Your task to perform on an android device: turn off airplane mode Image 0: 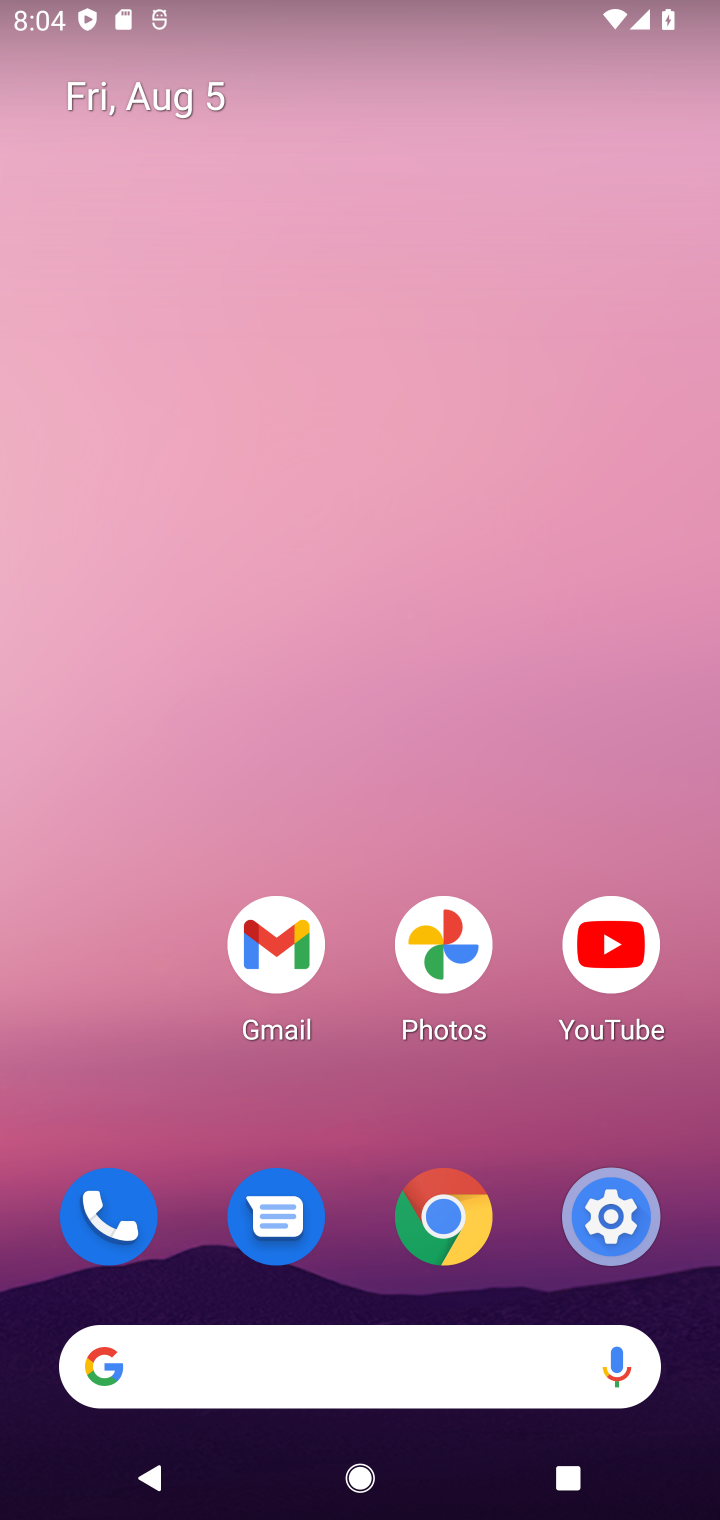
Step 0: drag from (378, 1151) to (538, 177)
Your task to perform on an android device: turn off airplane mode Image 1: 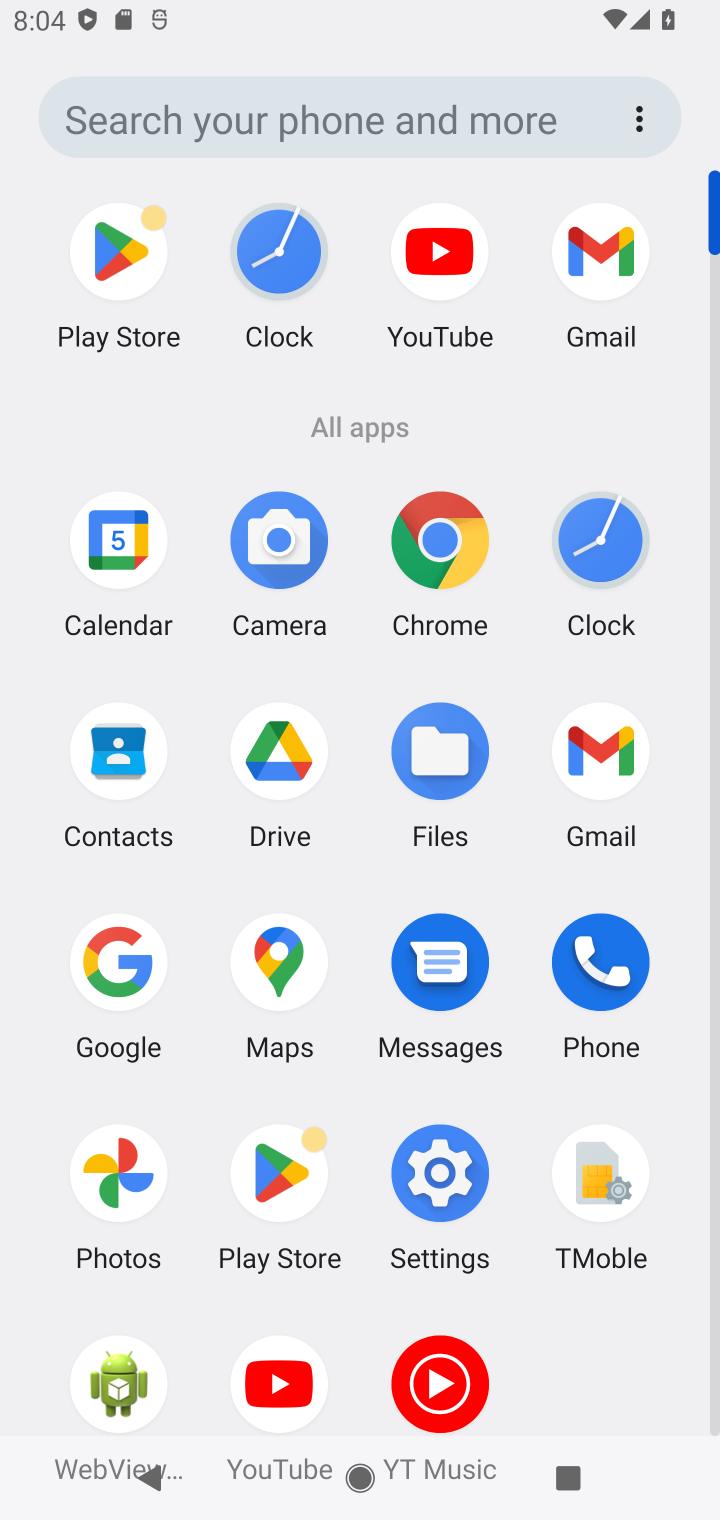
Step 1: click (432, 1182)
Your task to perform on an android device: turn off airplane mode Image 2: 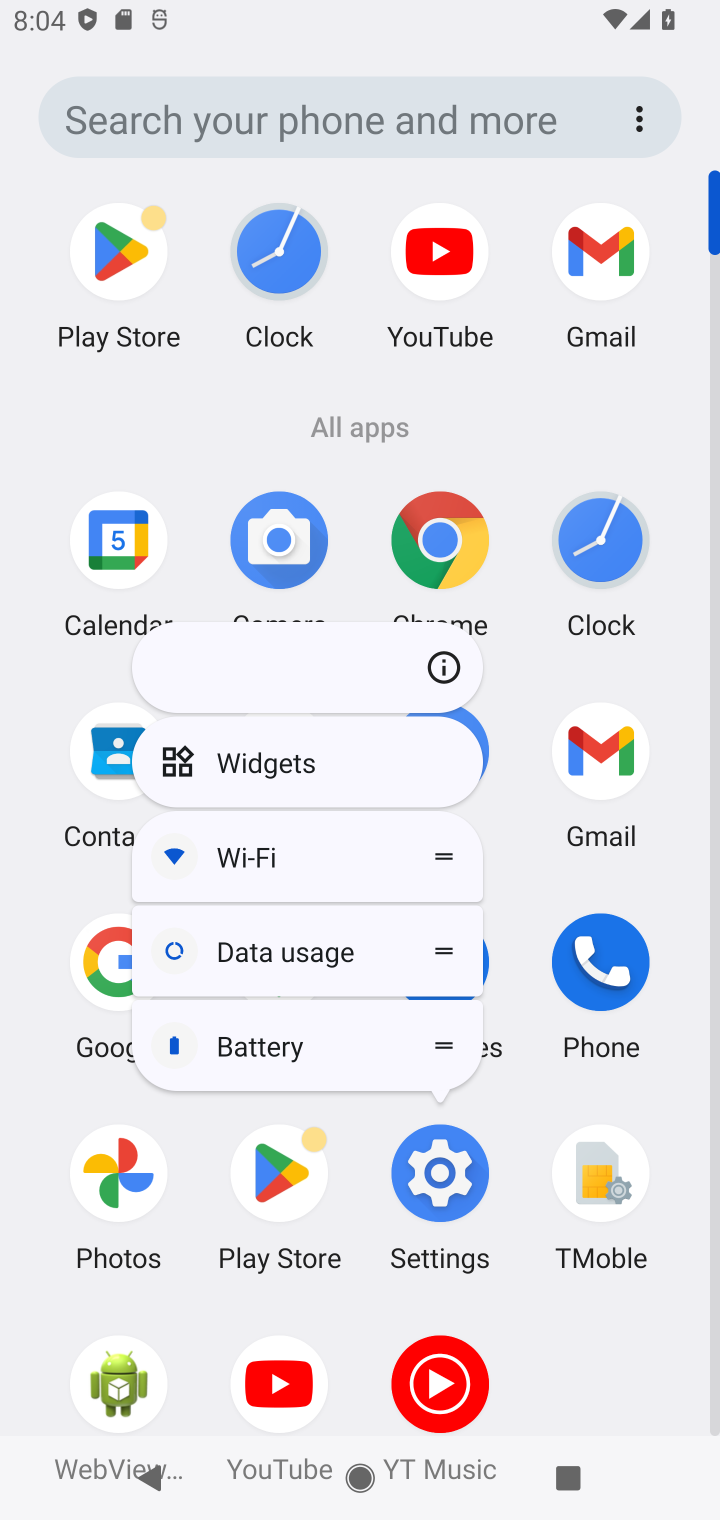
Step 2: click (434, 672)
Your task to perform on an android device: turn off airplane mode Image 3: 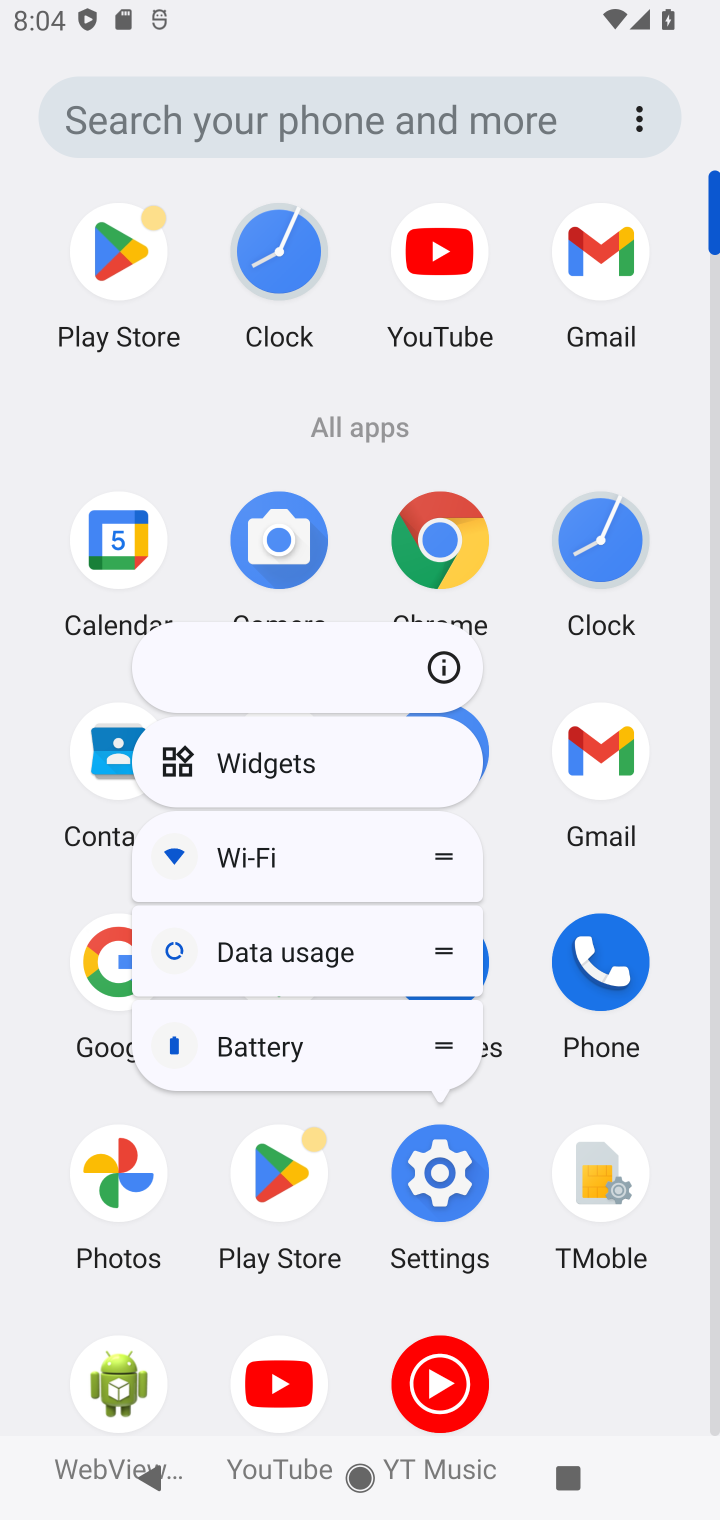
Step 3: click (442, 678)
Your task to perform on an android device: turn off airplane mode Image 4: 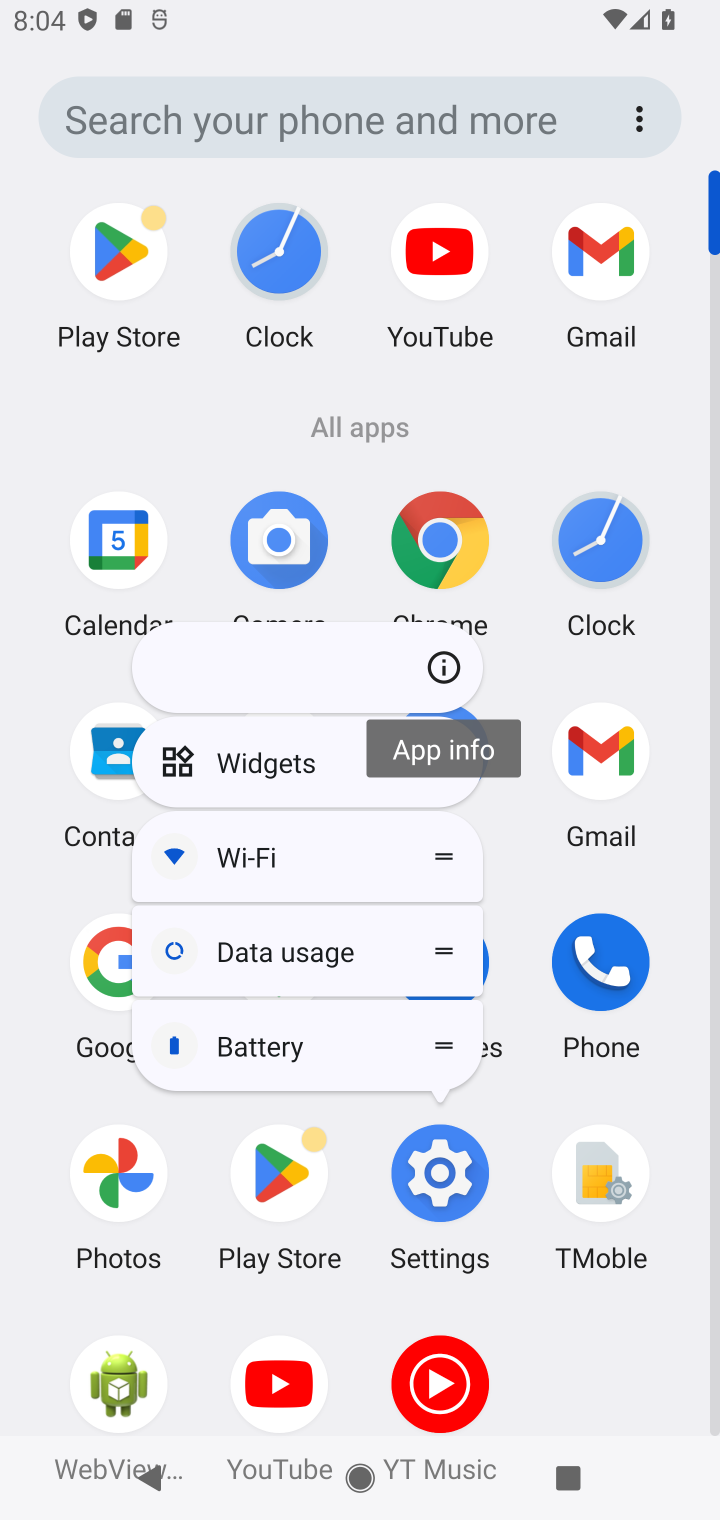
Step 4: click (437, 675)
Your task to perform on an android device: turn off airplane mode Image 5: 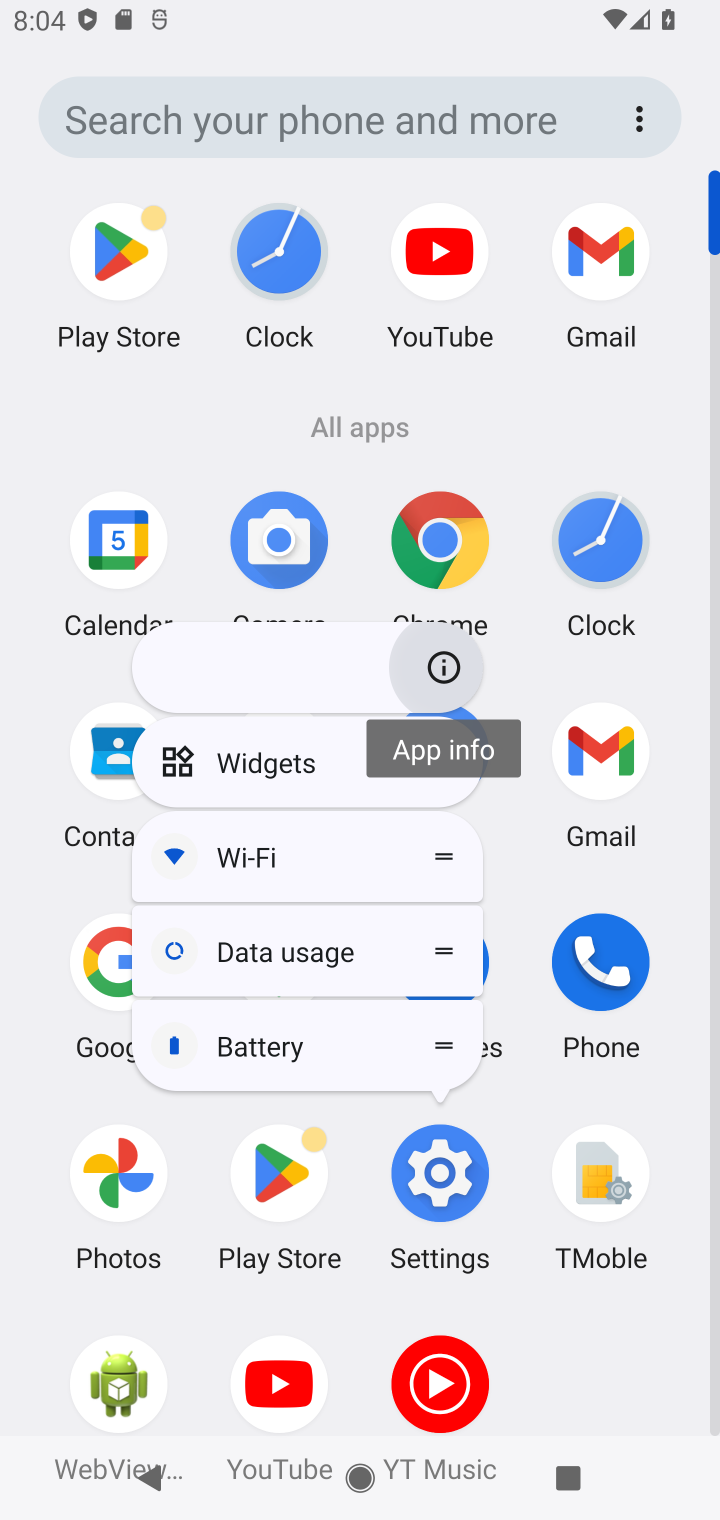
Step 5: click (437, 673)
Your task to perform on an android device: turn off airplane mode Image 6: 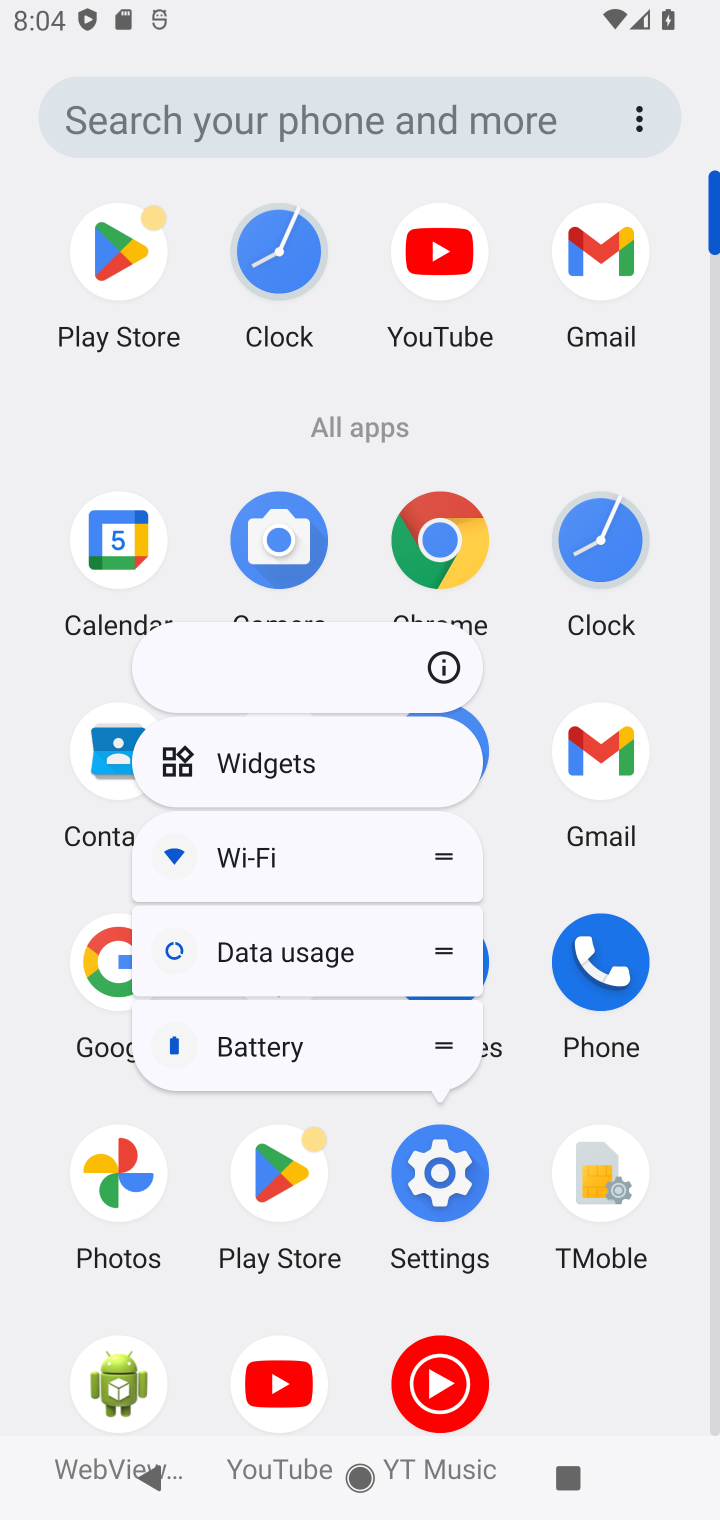
Step 6: drag from (632, 16) to (490, 1034)
Your task to perform on an android device: turn off airplane mode Image 7: 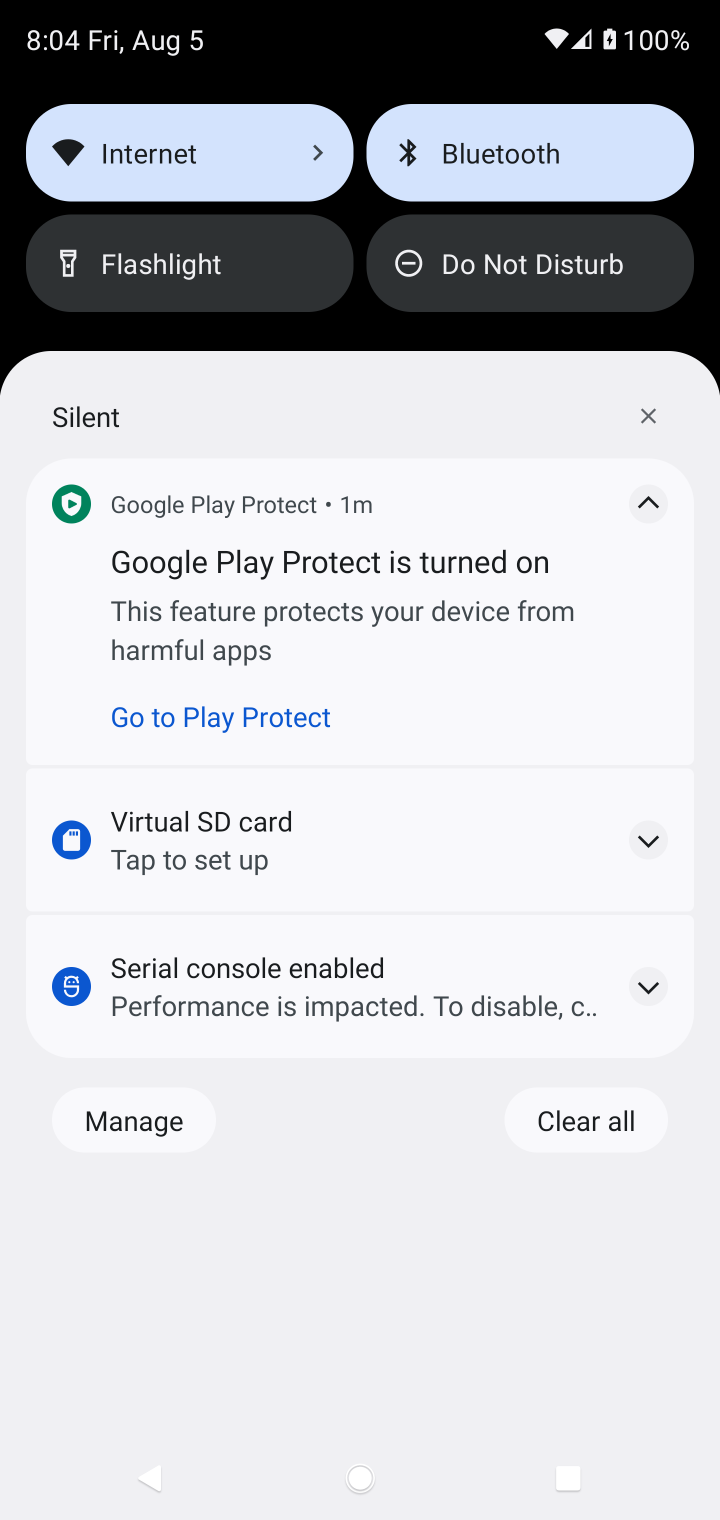
Step 7: click (113, 1137)
Your task to perform on an android device: turn off airplane mode Image 8: 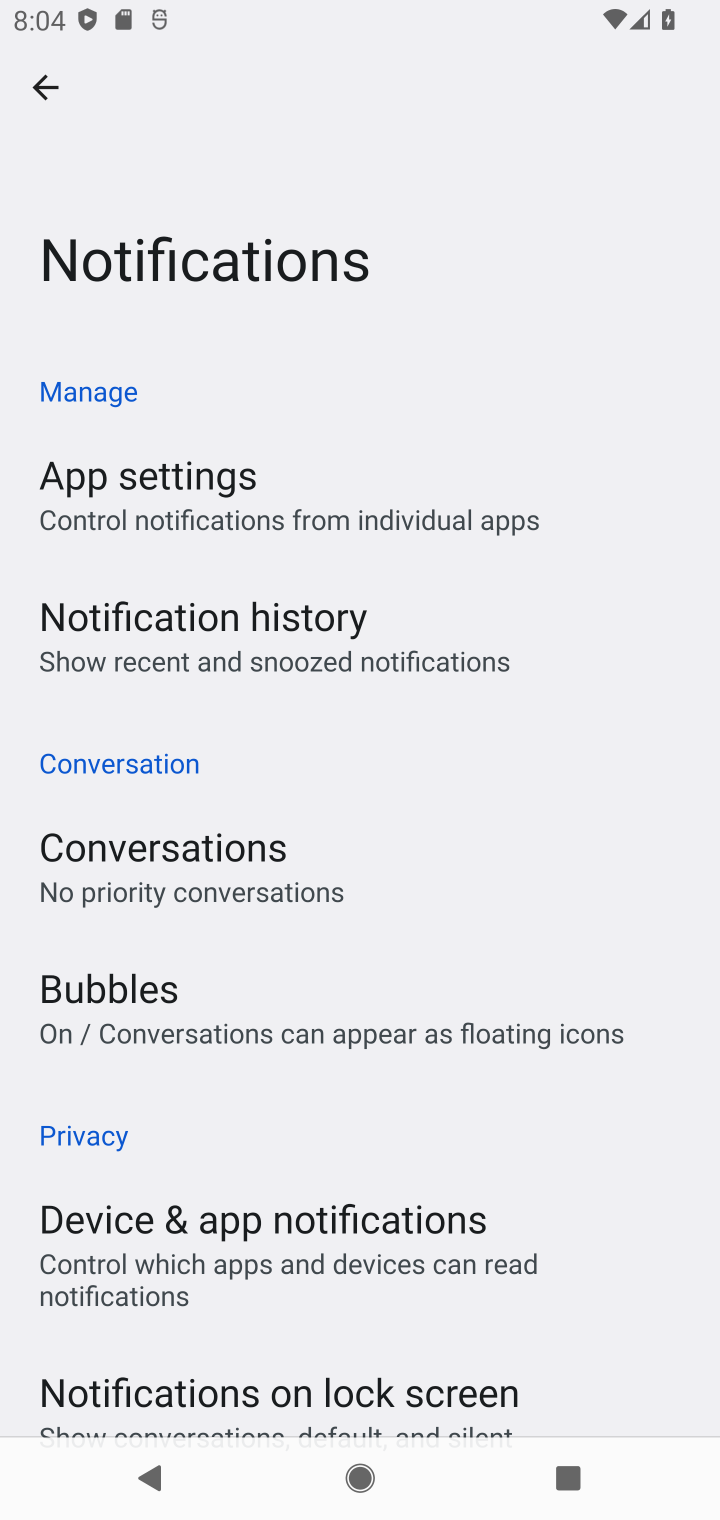
Step 8: drag from (258, 1120) to (333, 495)
Your task to perform on an android device: turn off airplane mode Image 9: 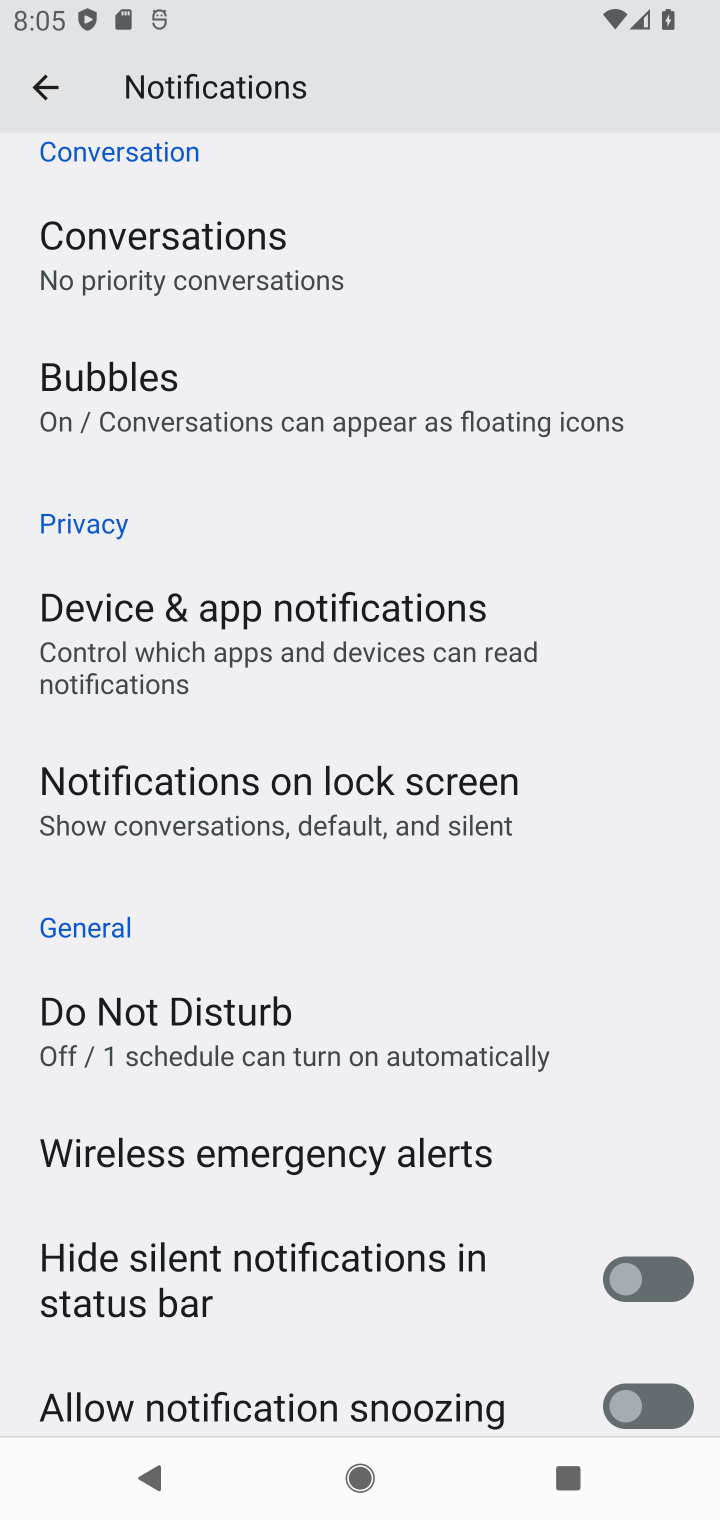
Step 9: drag from (350, 552) to (320, 1514)
Your task to perform on an android device: turn off airplane mode Image 10: 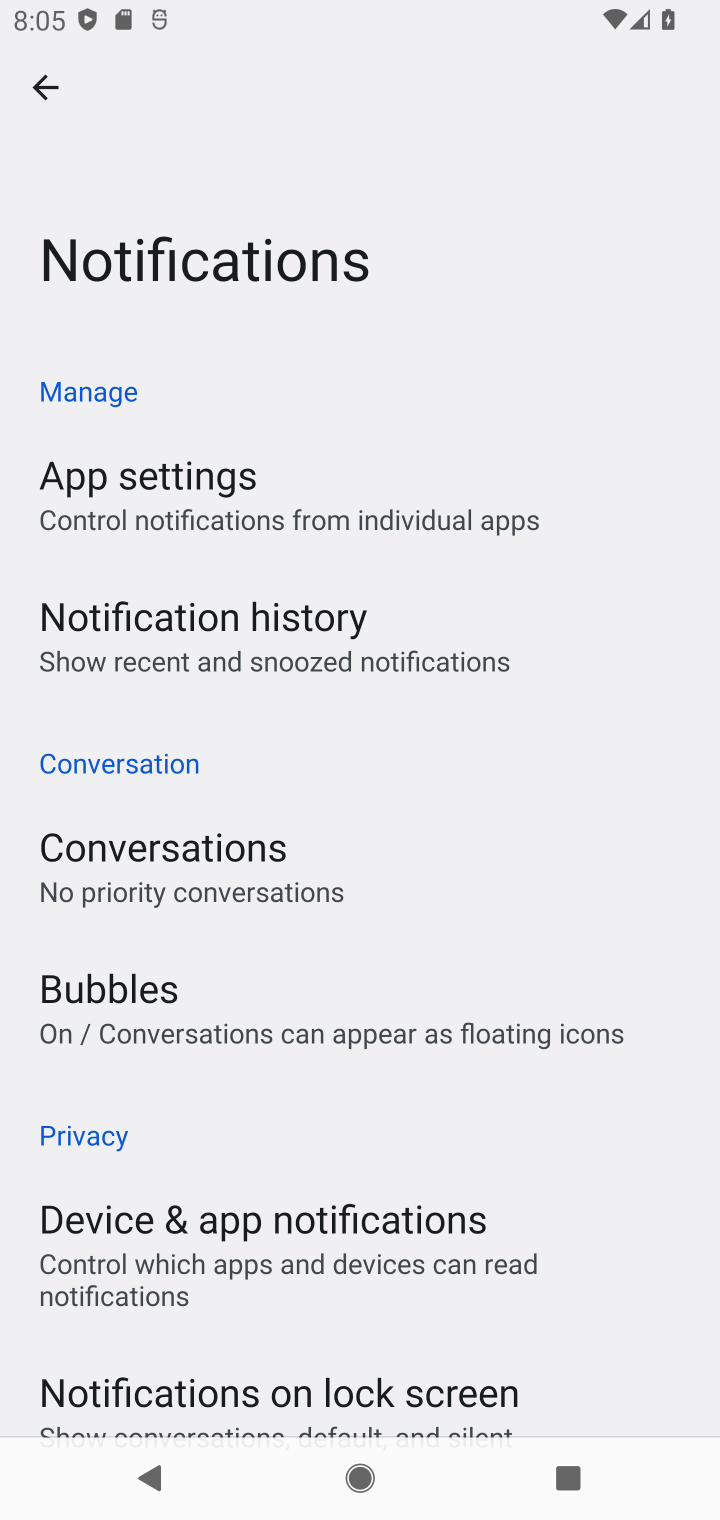
Step 10: click (59, 87)
Your task to perform on an android device: turn off airplane mode Image 11: 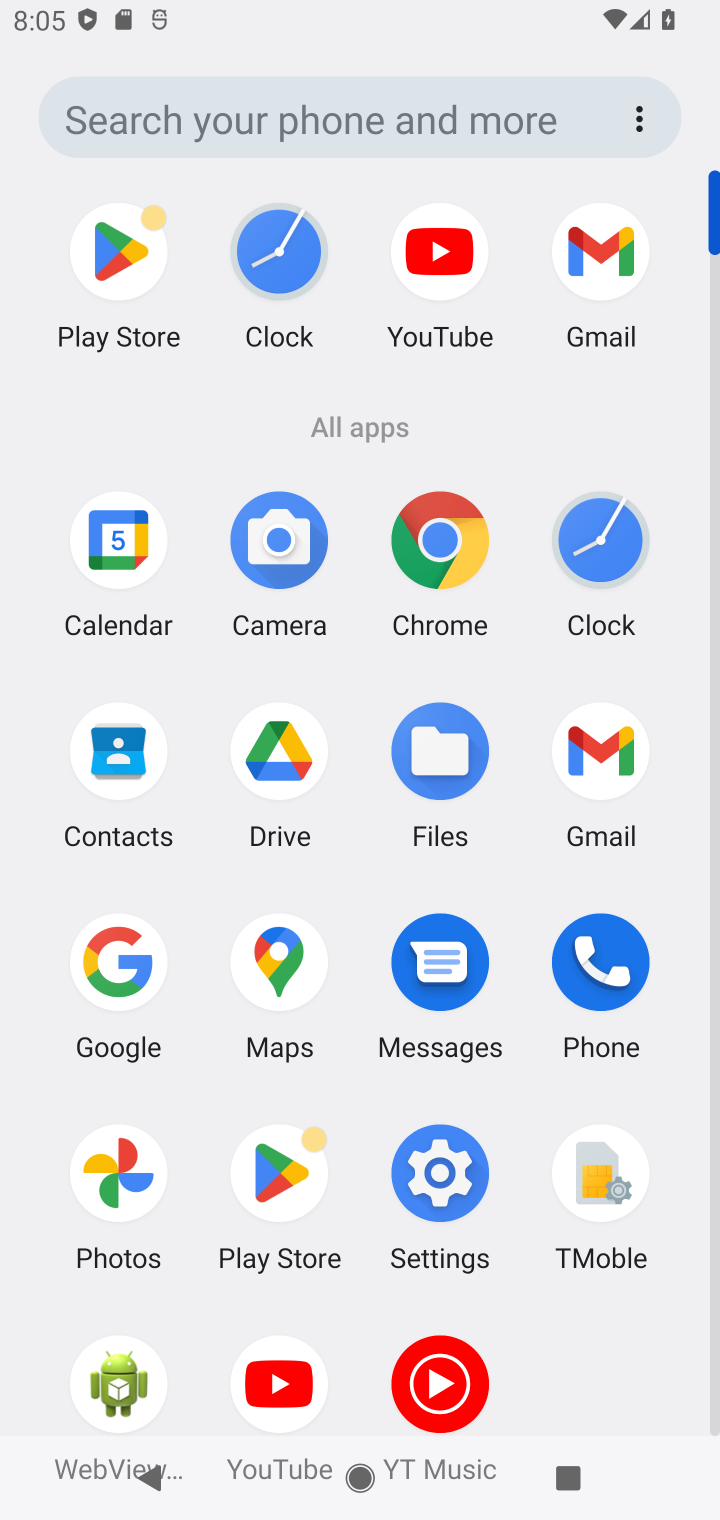
Step 11: click (448, 1158)
Your task to perform on an android device: turn off airplane mode Image 12: 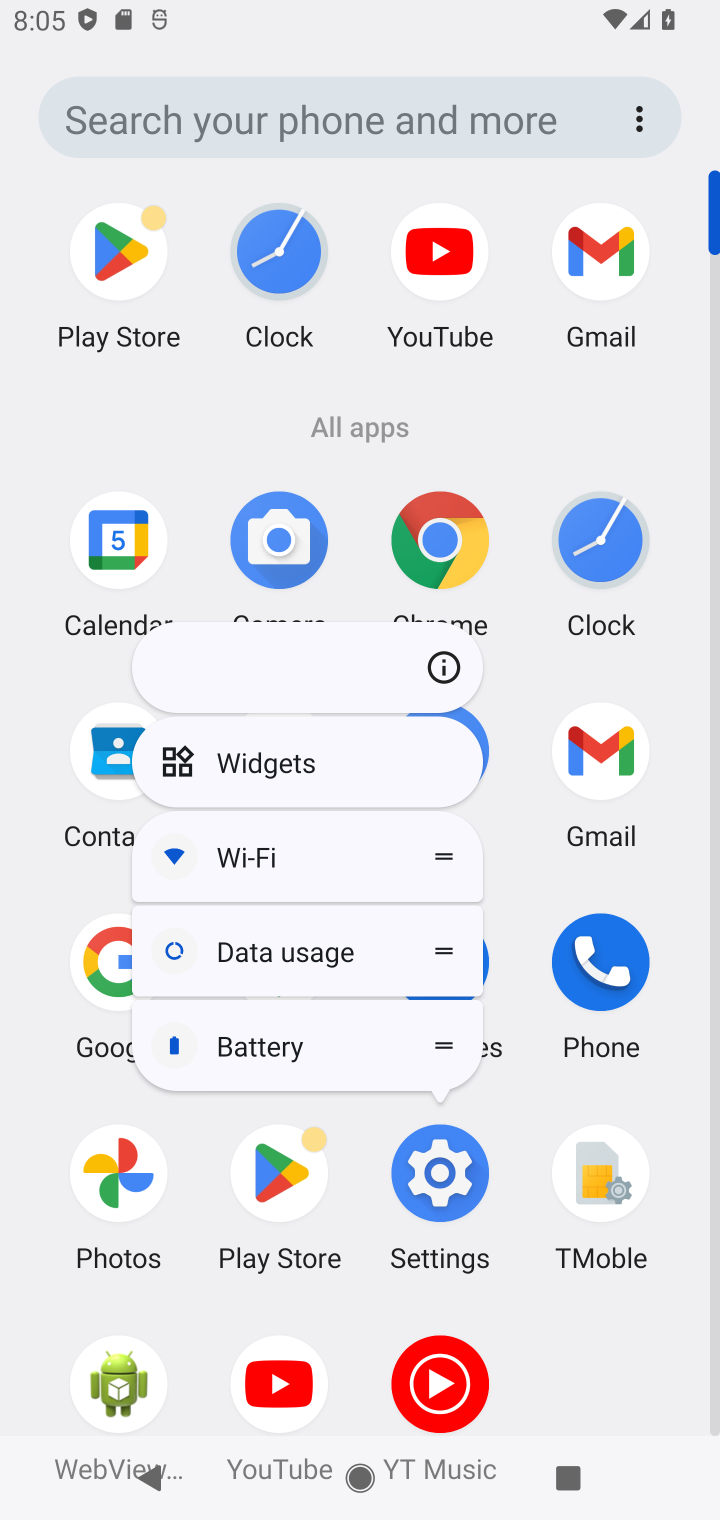
Step 12: click (413, 660)
Your task to perform on an android device: turn off airplane mode Image 13: 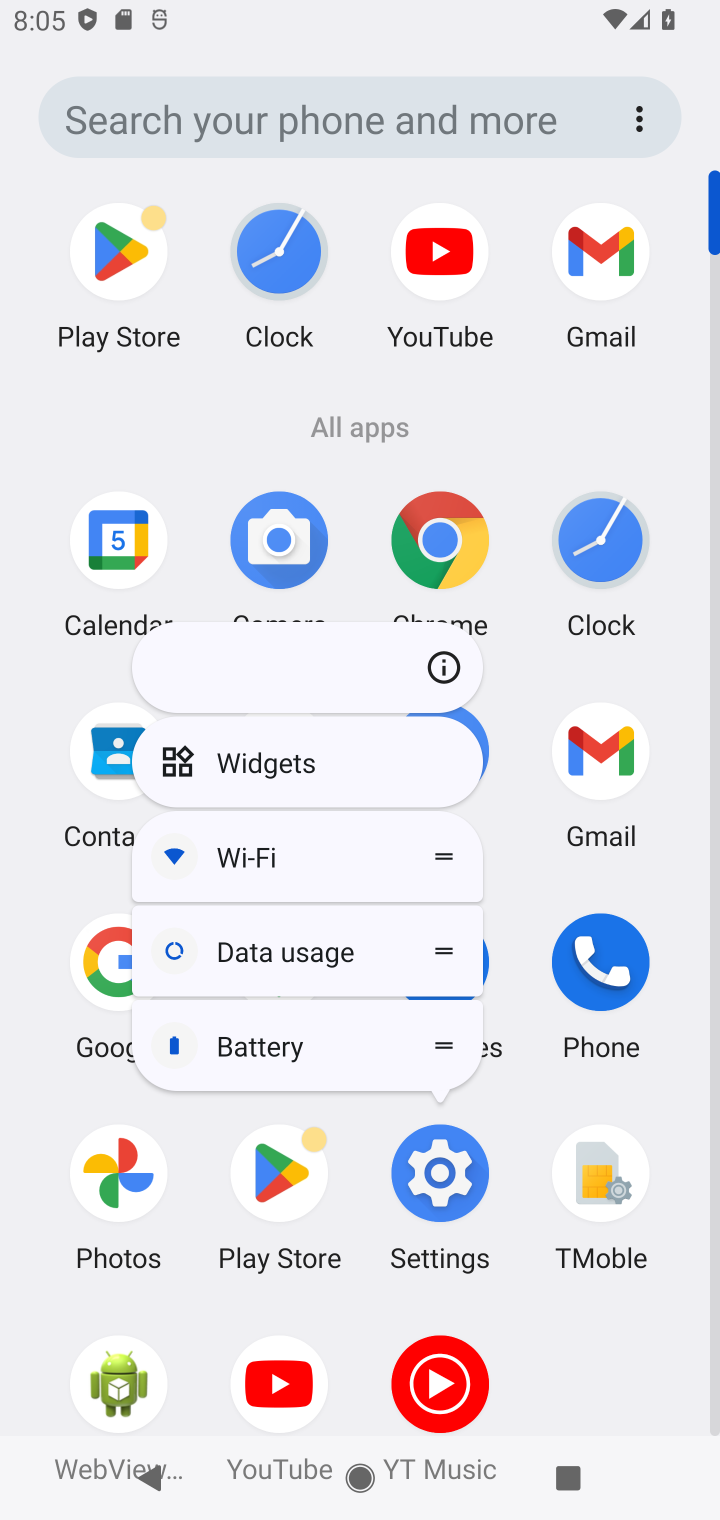
Step 13: click (420, 658)
Your task to perform on an android device: turn off airplane mode Image 14: 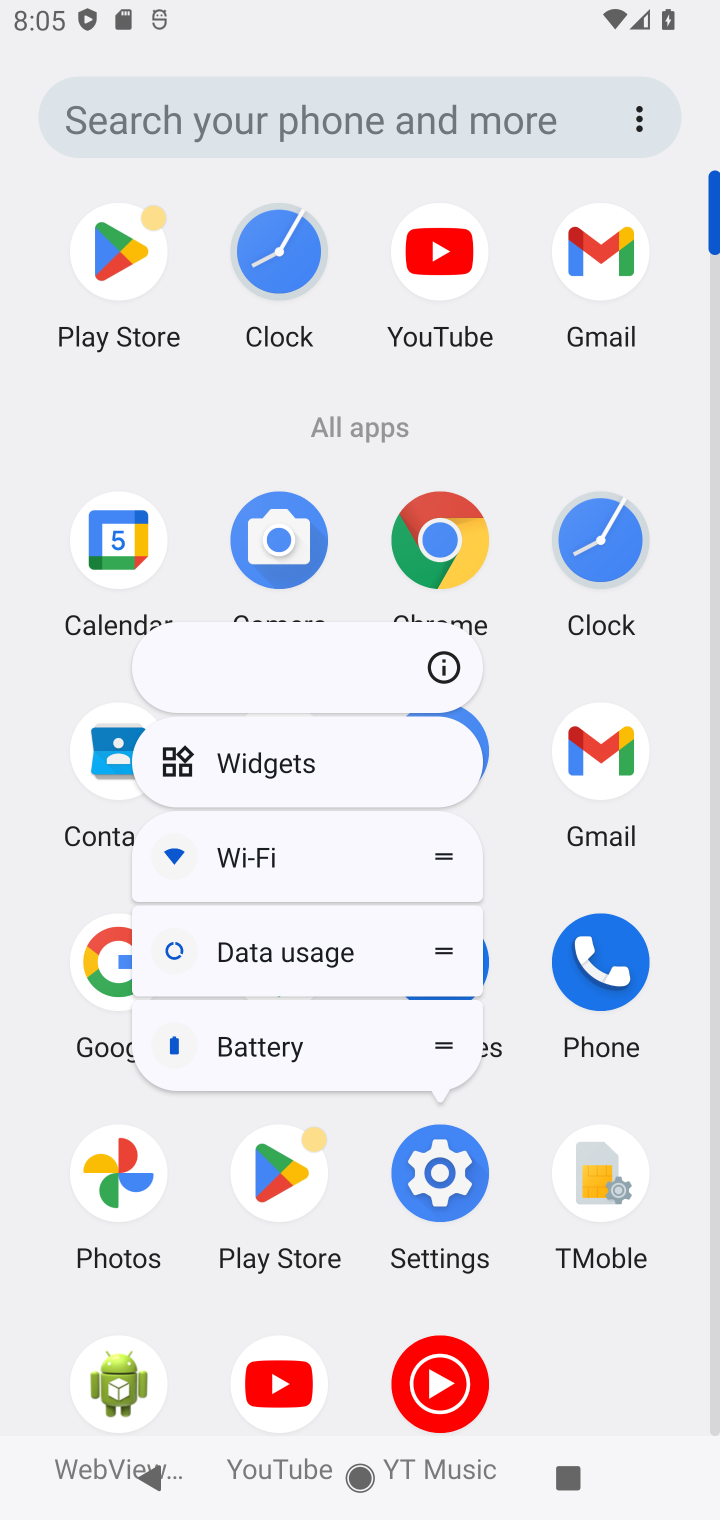
Step 14: click (449, 669)
Your task to perform on an android device: turn off airplane mode Image 15: 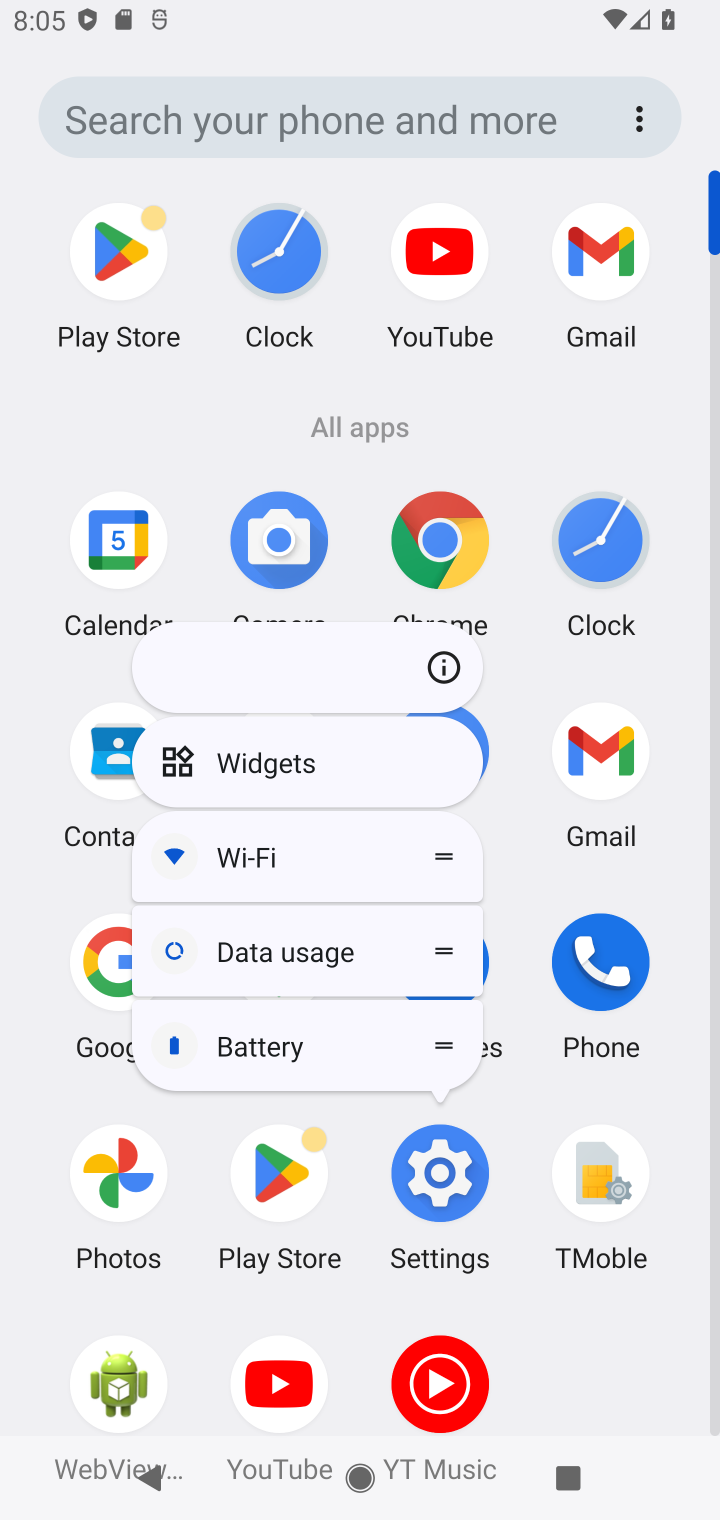
Step 15: click (431, 661)
Your task to perform on an android device: turn off airplane mode Image 16: 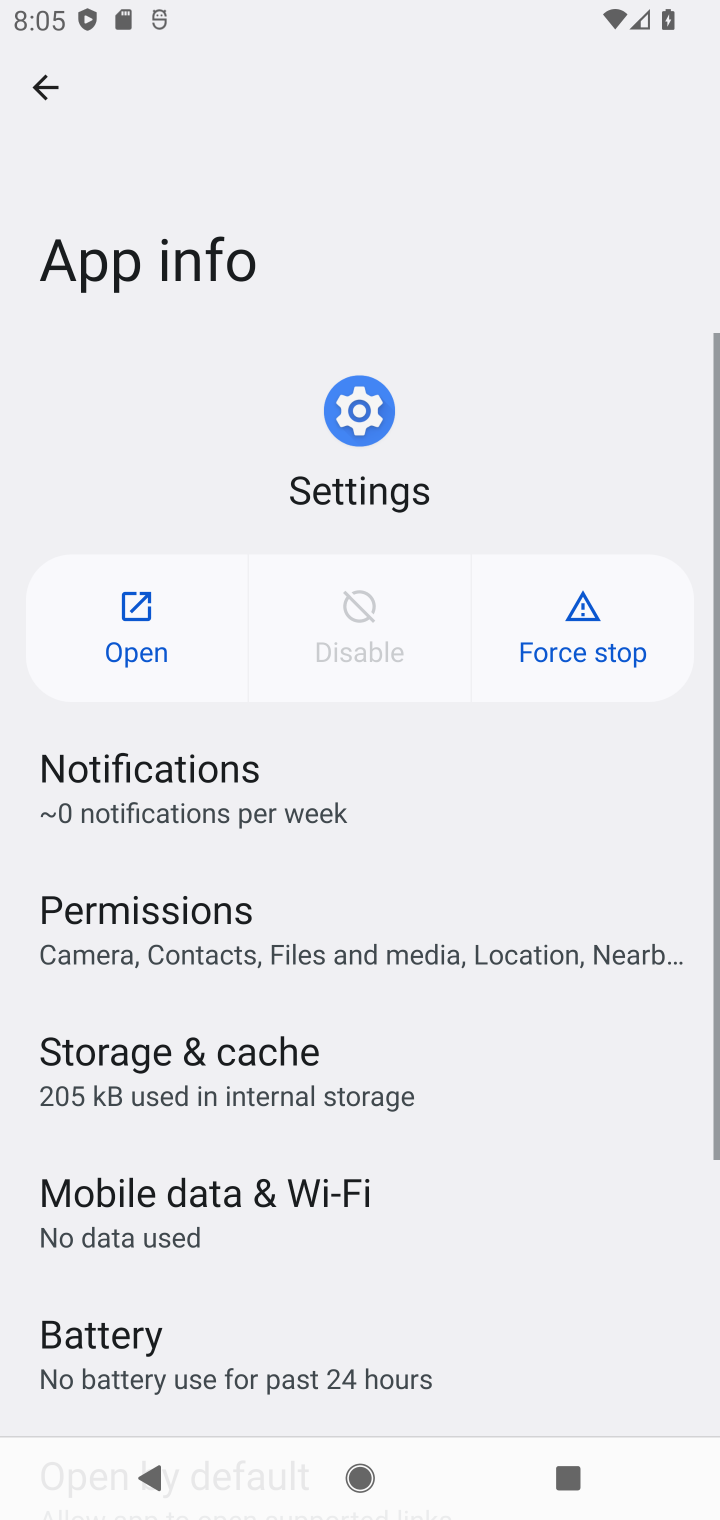
Step 16: click (145, 600)
Your task to perform on an android device: turn off airplane mode Image 17: 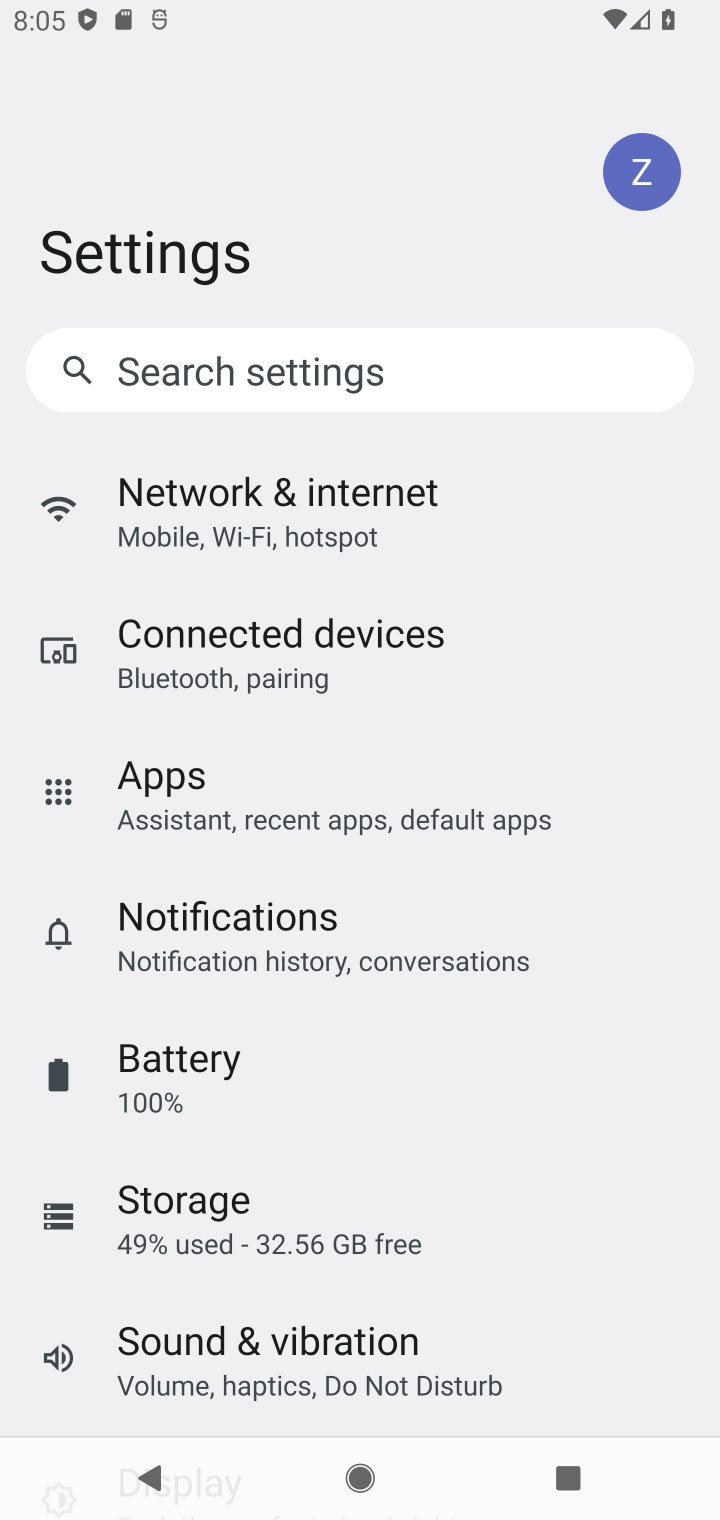
Step 17: click (267, 519)
Your task to perform on an android device: turn off airplane mode Image 18: 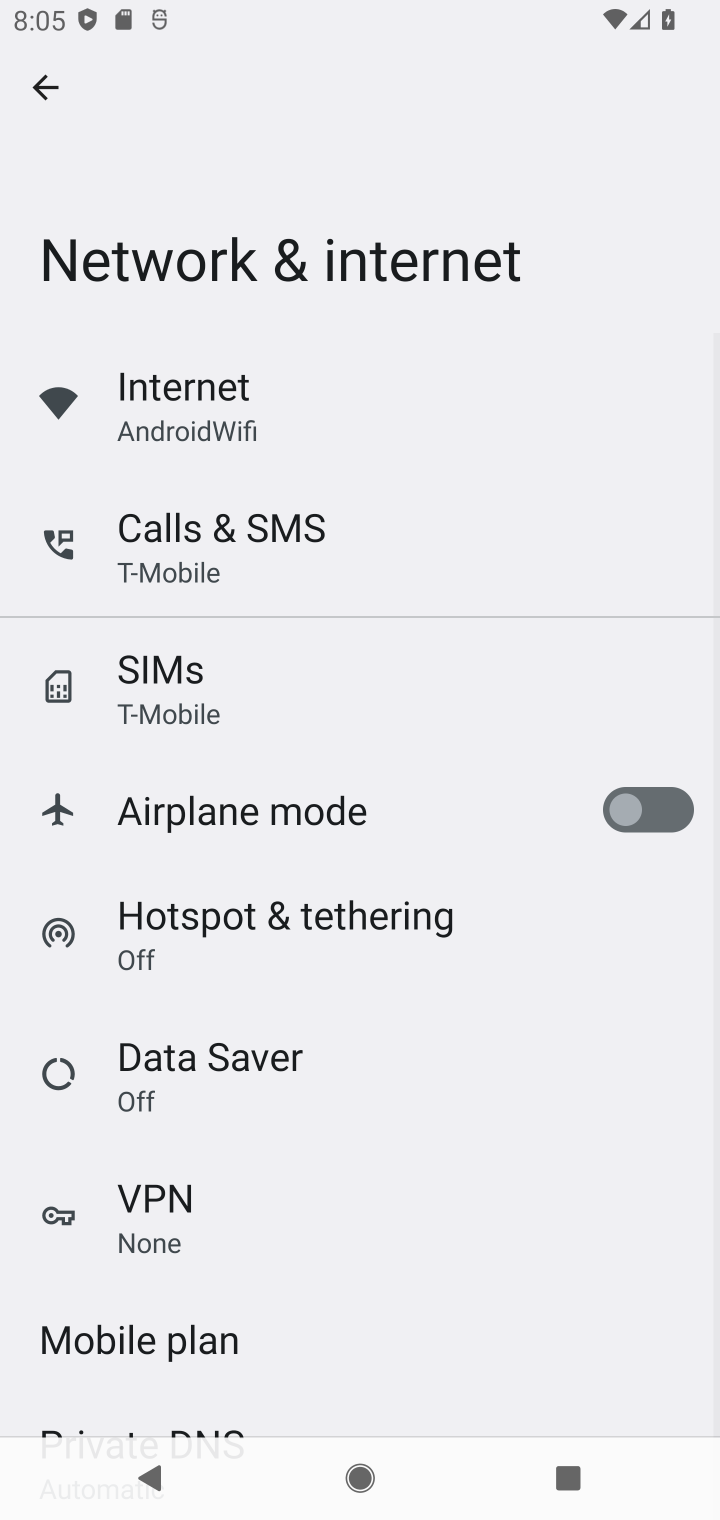
Step 18: task complete